Your task to perform on an android device: Go to settings Image 0: 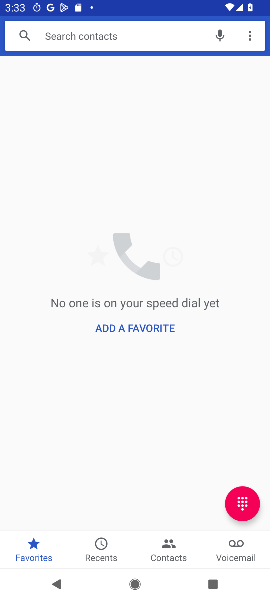
Step 0: press home button
Your task to perform on an android device: Go to settings Image 1: 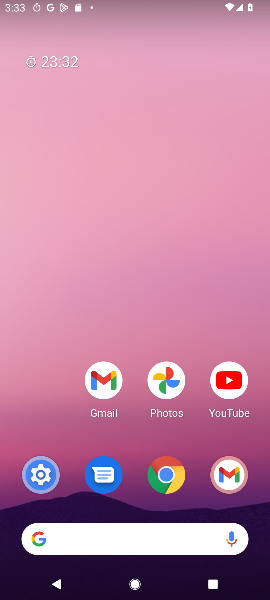
Step 1: drag from (50, 431) to (49, 188)
Your task to perform on an android device: Go to settings Image 2: 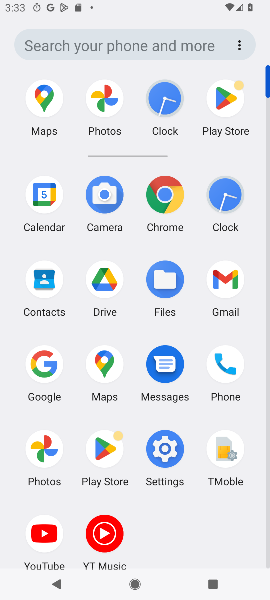
Step 2: click (164, 462)
Your task to perform on an android device: Go to settings Image 3: 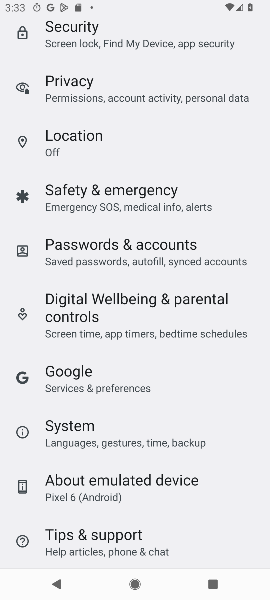
Step 3: task complete